Your task to perform on an android device: turn on airplane mode Image 0: 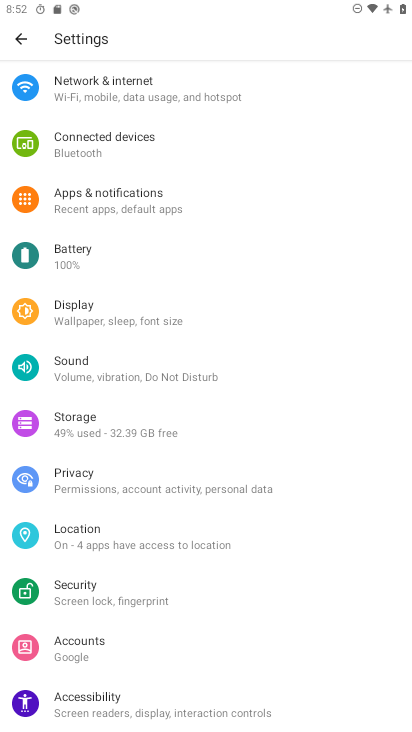
Step 0: click (114, 88)
Your task to perform on an android device: turn on airplane mode Image 1: 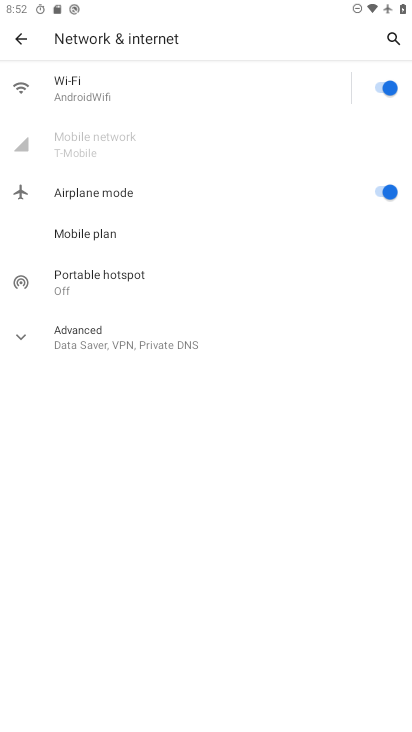
Step 1: task complete